Your task to perform on an android device: Open ESPN.com Image 0: 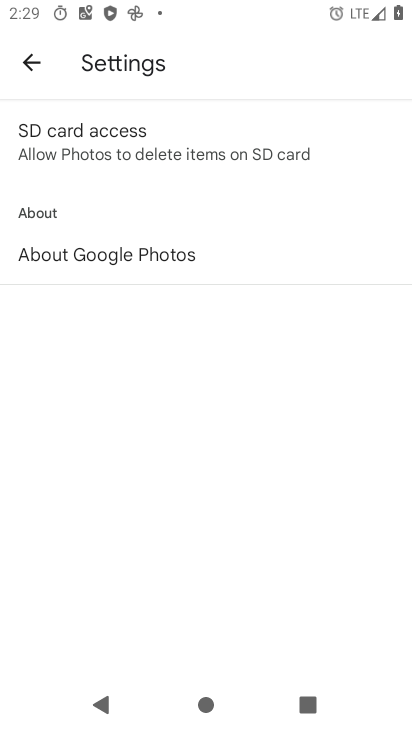
Step 0: press home button
Your task to perform on an android device: Open ESPN.com Image 1: 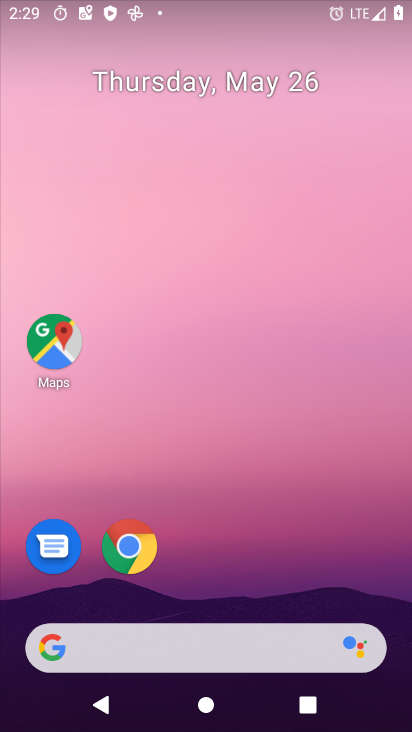
Step 1: drag from (251, 484) to (253, 143)
Your task to perform on an android device: Open ESPN.com Image 2: 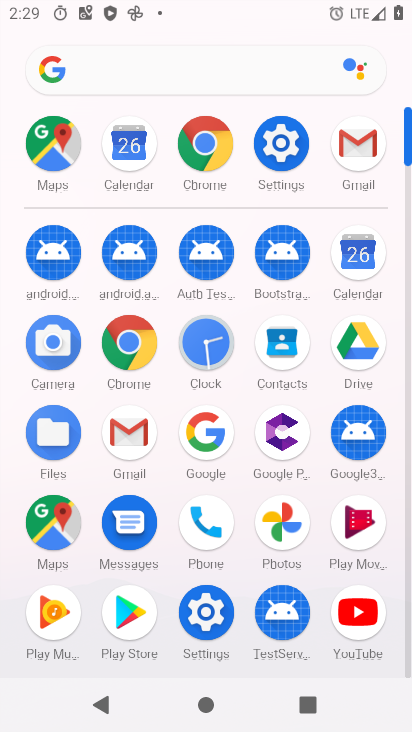
Step 2: click (207, 439)
Your task to perform on an android device: Open ESPN.com Image 3: 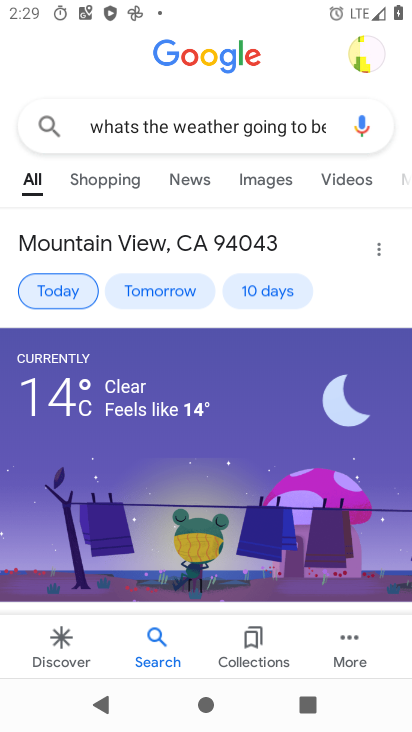
Step 3: click (311, 118)
Your task to perform on an android device: Open ESPN.com Image 4: 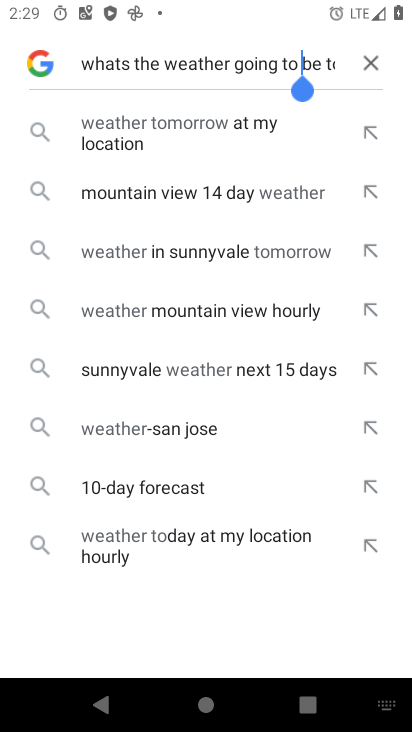
Step 4: click (376, 71)
Your task to perform on an android device: Open ESPN.com Image 5: 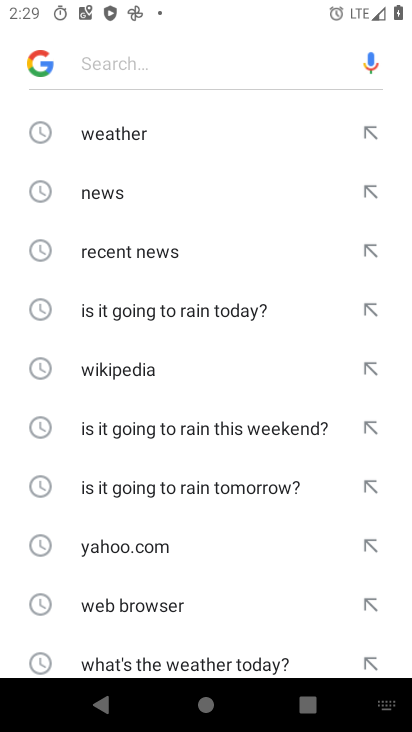
Step 5: drag from (165, 565) to (189, 217)
Your task to perform on an android device: Open ESPN.com Image 6: 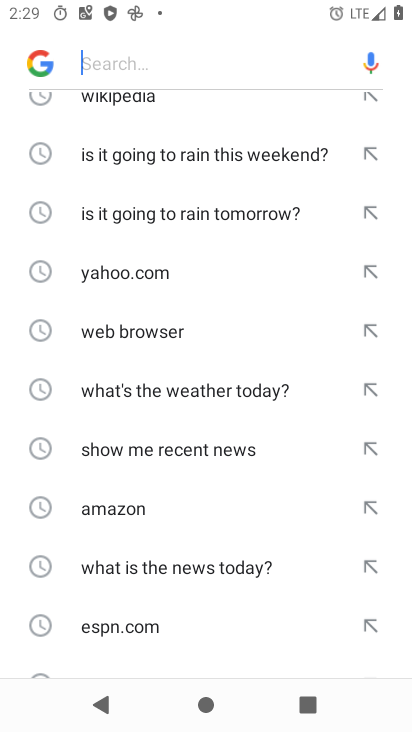
Step 6: click (127, 623)
Your task to perform on an android device: Open ESPN.com Image 7: 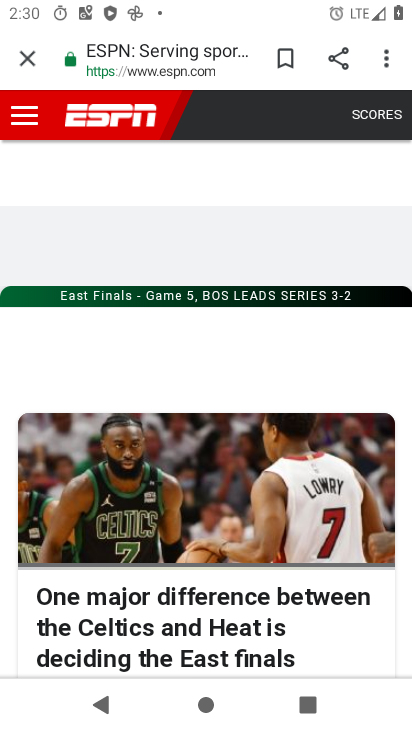
Step 7: task complete